Your task to perform on an android device: Search for seafood restaurants on Google Maps Image 0: 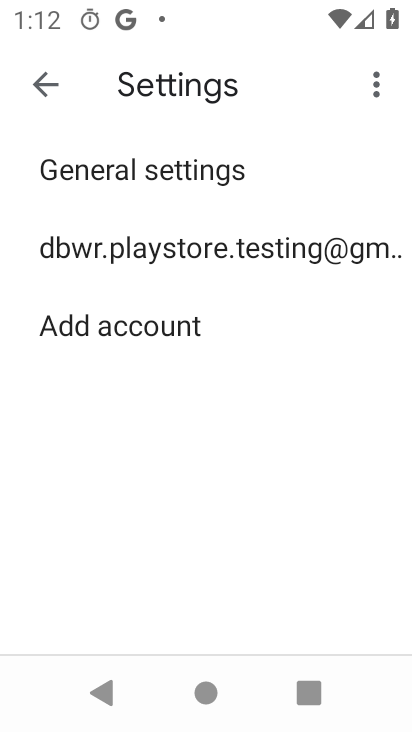
Step 0: press home button
Your task to perform on an android device: Search for seafood restaurants on Google Maps Image 1: 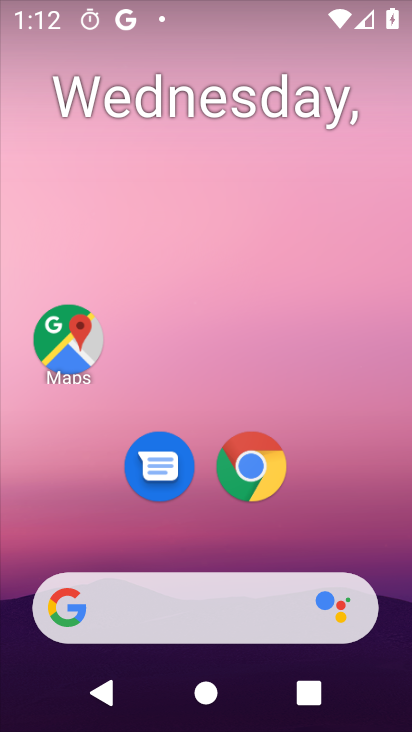
Step 1: click (87, 340)
Your task to perform on an android device: Search for seafood restaurants on Google Maps Image 2: 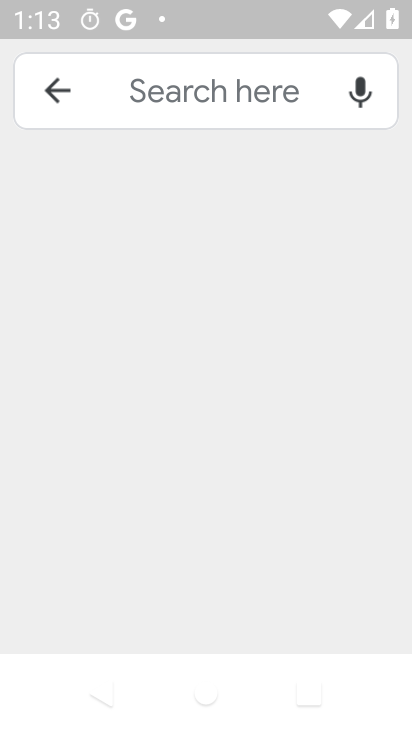
Step 2: click (44, 84)
Your task to perform on an android device: Search for seafood restaurants on Google Maps Image 3: 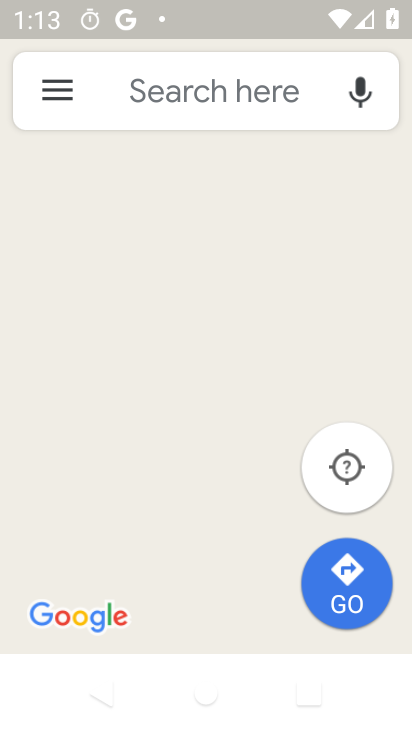
Step 3: click (143, 68)
Your task to perform on an android device: Search for seafood restaurants on Google Maps Image 4: 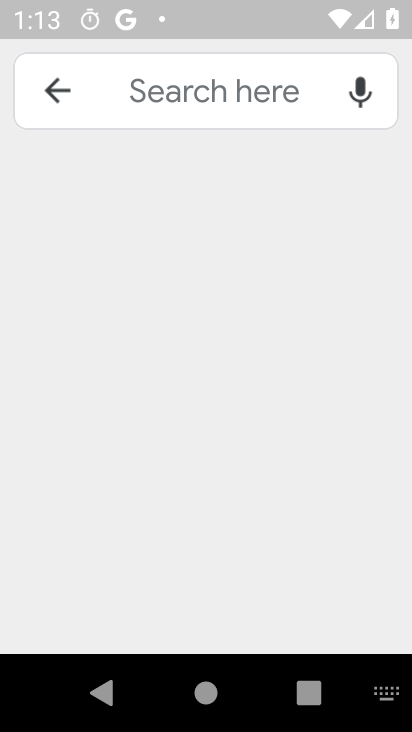
Step 4: type "seafood restaurants"
Your task to perform on an android device: Search for seafood restaurants on Google Maps Image 5: 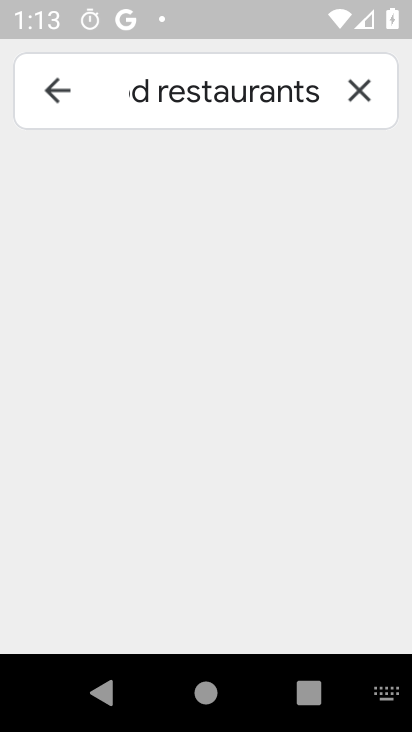
Step 5: task complete